Your task to perform on an android device: toggle javascript in the chrome app Image 0: 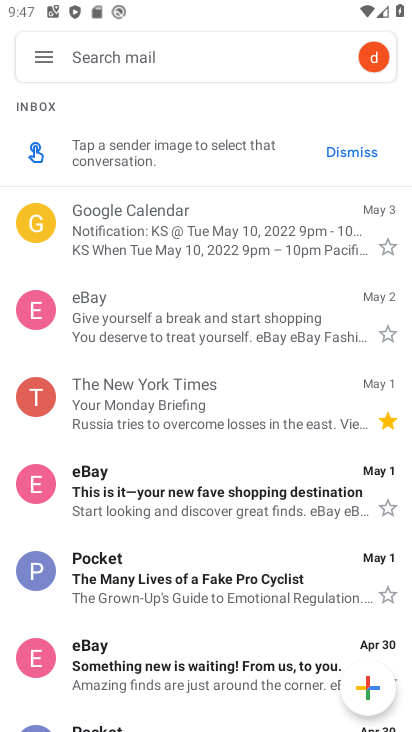
Step 0: press home button
Your task to perform on an android device: toggle javascript in the chrome app Image 1: 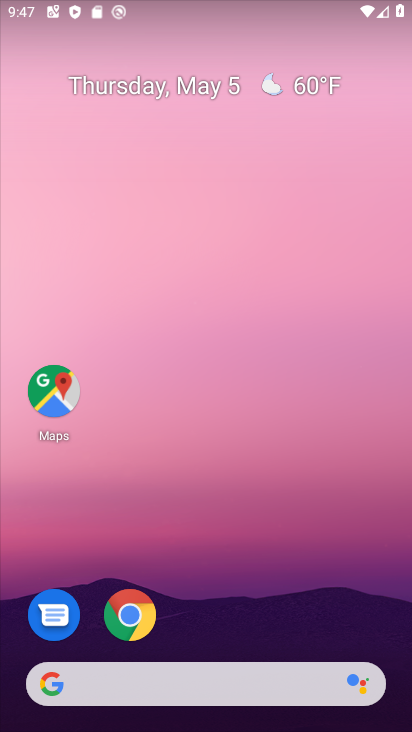
Step 1: click (128, 620)
Your task to perform on an android device: toggle javascript in the chrome app Image 2: 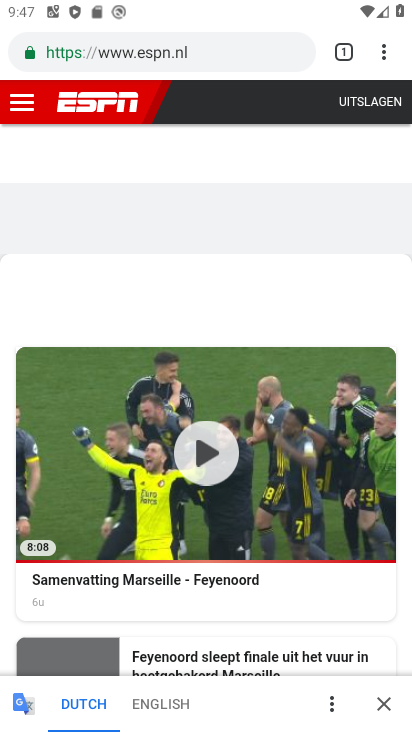
Step 2: click (379, 51)
Your task to perform on an android device: toggle javascript in the chrome app Image 3: 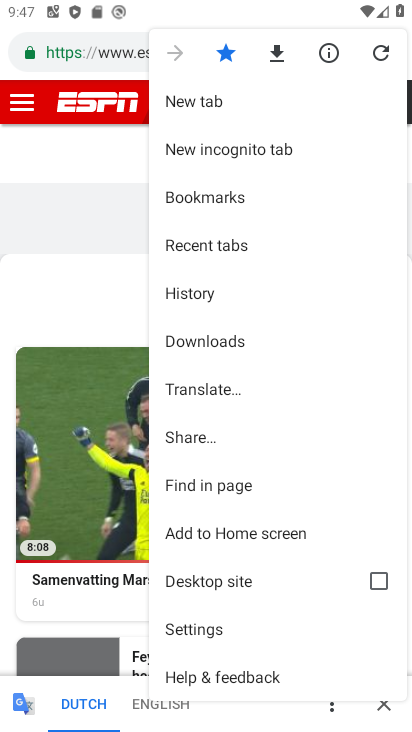
Step 3: click (268, 628)
Your task to perform on an android device: toggle javascript in the chrome app Image 4: 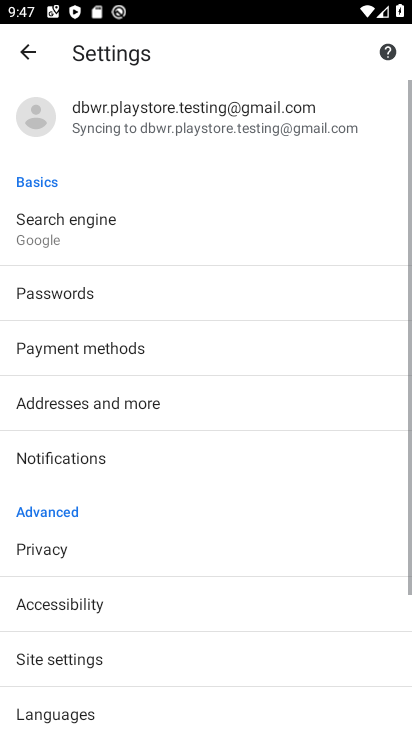
Step 4: click (120, 661)
Your task to perform on an android device: toggle javascript in the chrome app Image 5: 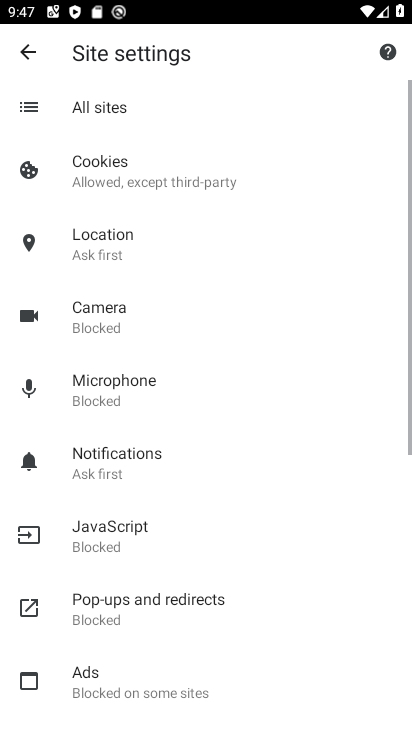
Step 5: click (169, 543)
Your task to perform on an android device: toggle javascript in the chrome app Image 6: 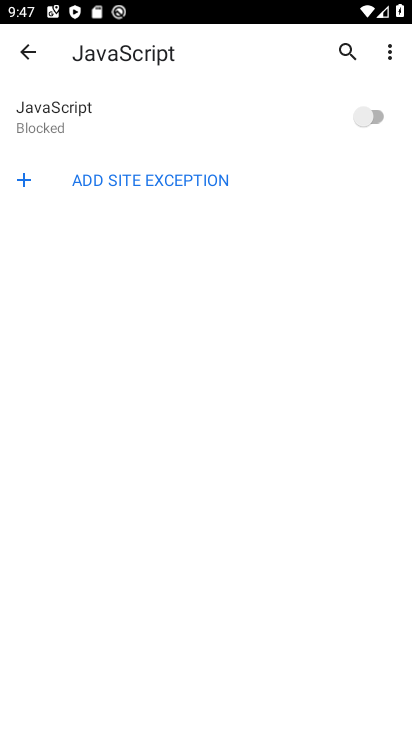
Step 6: click (367, 113)
Your task to perform on an android device: toggle javascript in the chrome app Image 7: 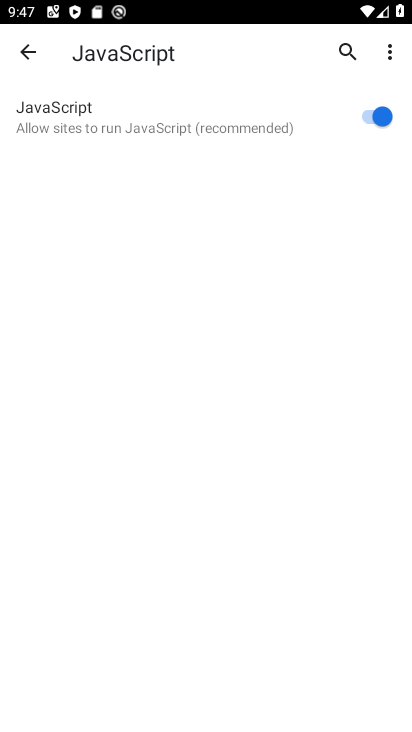
Step 7: task complete